Your task to perform on an android device: turn off location Image 0: 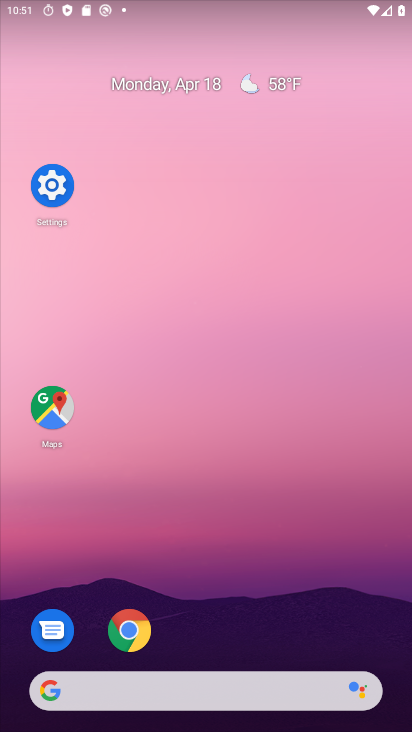
Step 0: click (45, 177)
Your task to perform on an android device: turn off location Image 1: 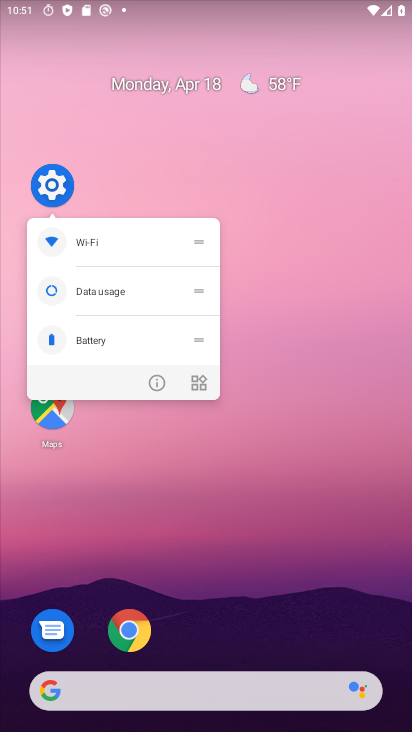
Step 1: click (45, 195)
Your task to perform on an android device: turn off location Image 2: 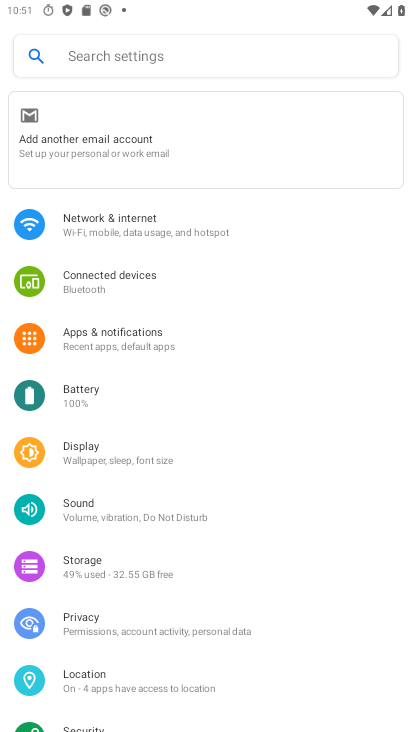
Step 2: drag from (235, 560) to (236, 218)
Your task to perform on an android device: turn off location Image 3: 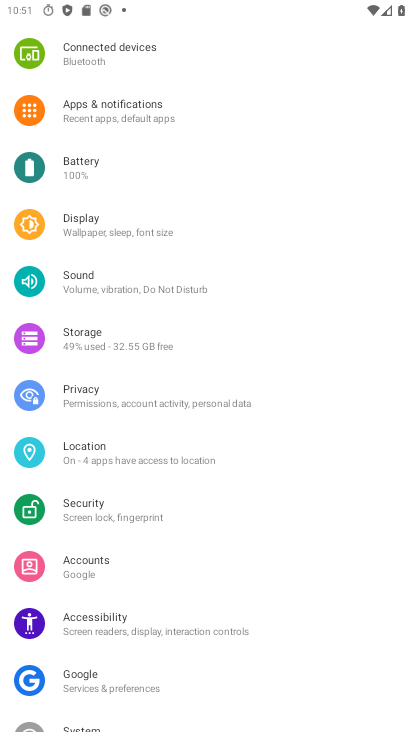
Step 3: click (126, 467)
Your task to perform on an android device: turn off location Image 4: 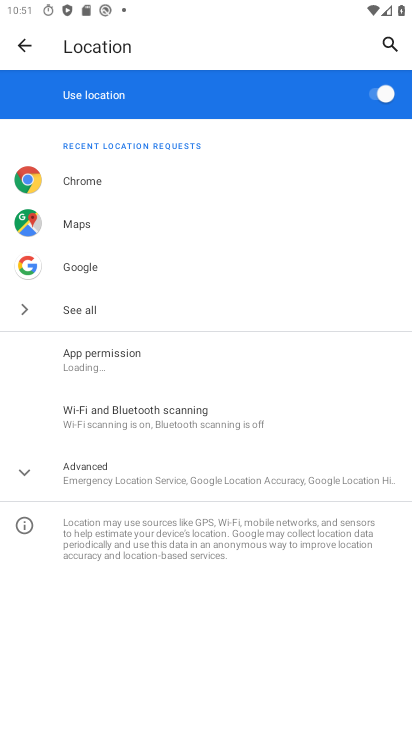
Step 4: click (382, 85)
Your task to perform on an android device: turn off location Image 5: 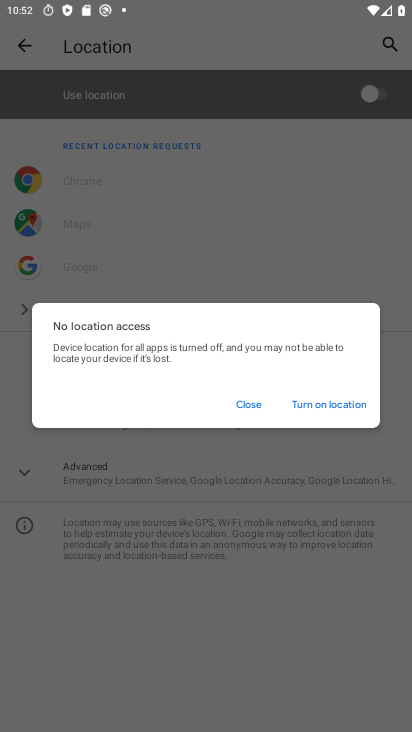
Step 5: task complete